Your task to perform on an android device: open app "Gmail" (install if not already installed), go to login, and select forgot password Image 0: 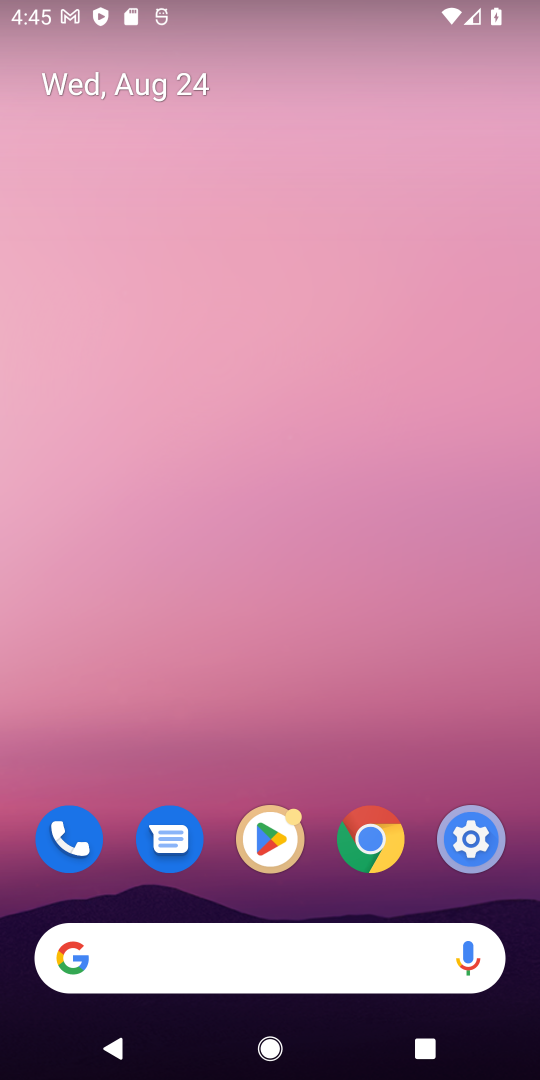
Step 0: click (274, 834)
Your task to perform on an android device: open app "Gmail" (install if not already installed), go to login, and select forgot password Image 1: 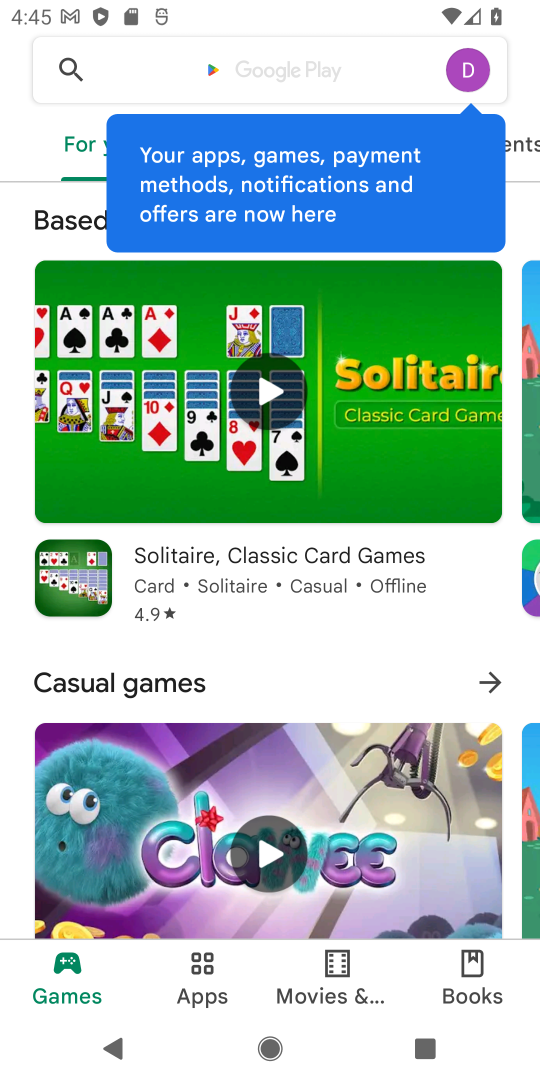
Step 1: click (296, 55)
Your task to perform on an android device: open app "Gmail" (install if not already installed), go to login, and select forgot password Image 2: 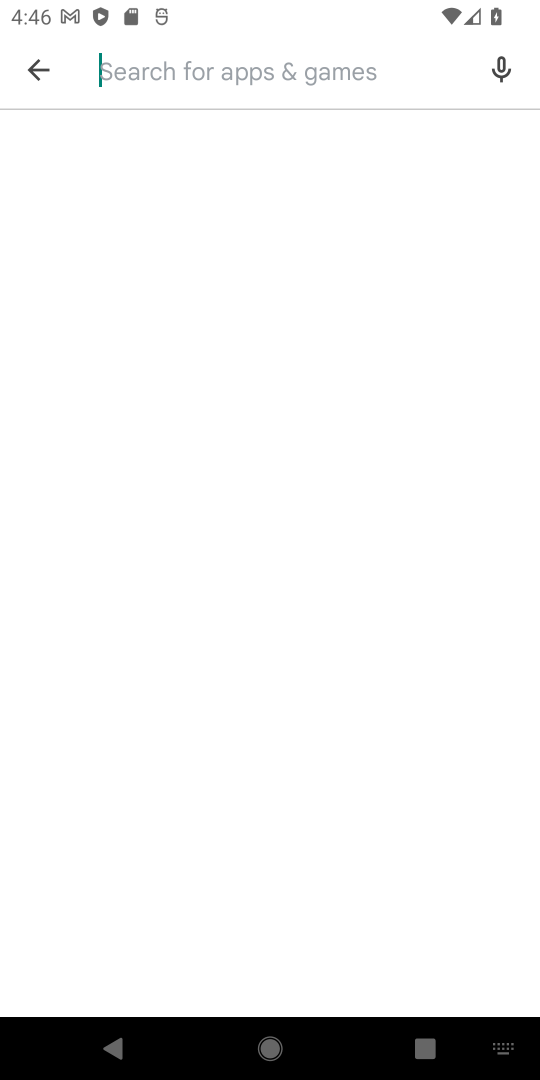
Step 2: type "Gmail"
Your task to perform on an android device: open app "Gmail" (install if not already installed), go to login, and select forgot password Image 3: 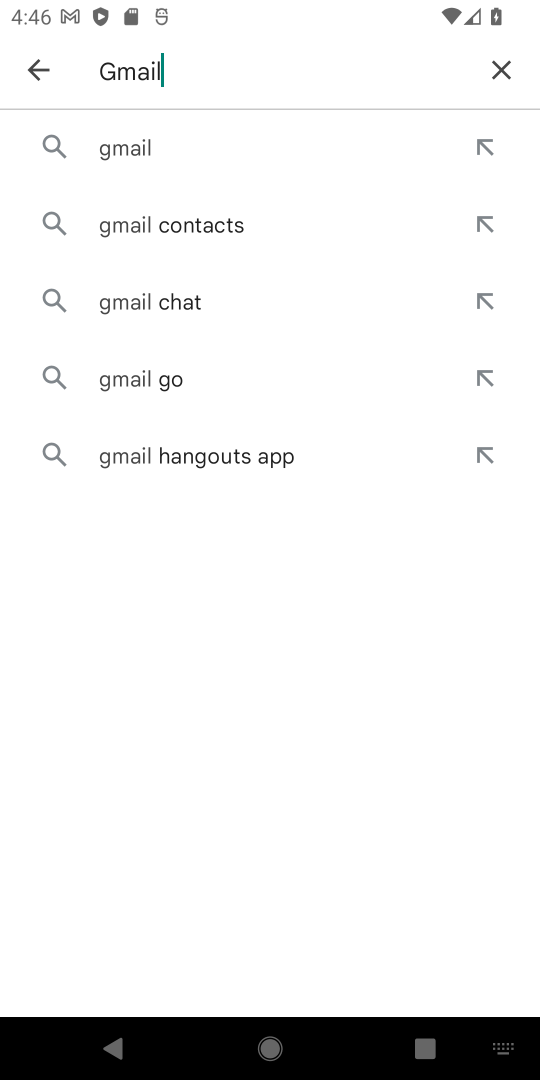
Step 3: click (138, 150)
Your task to perform on an android device: open app "Gmail" (install if not already installed), go to login, and select forgot password Image 4: 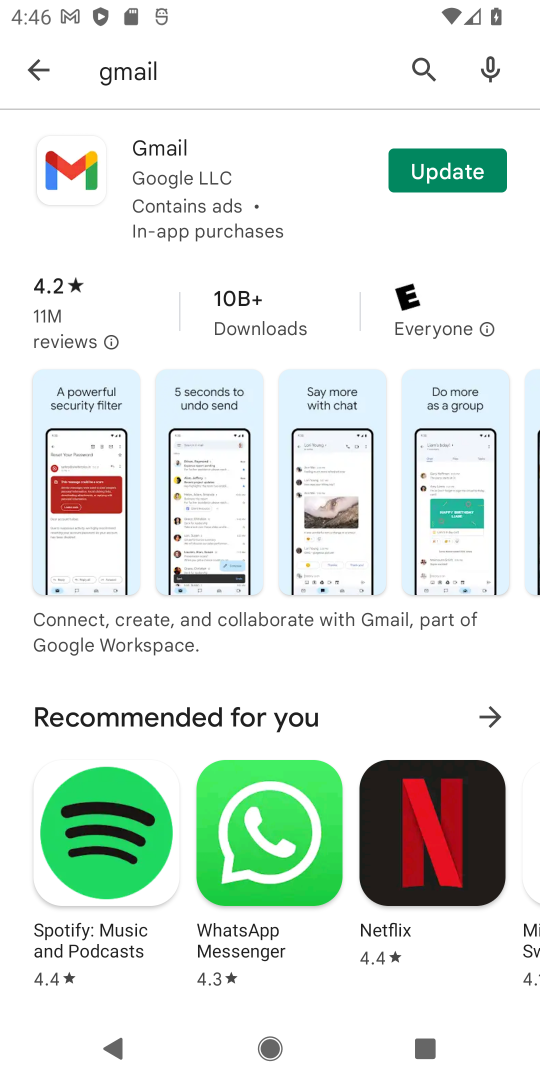
Step 4: click (158, 153)
Your task to perform on an android device: open app "Gmail" (install if not already installed), go to login, and select forgot password Image 5: 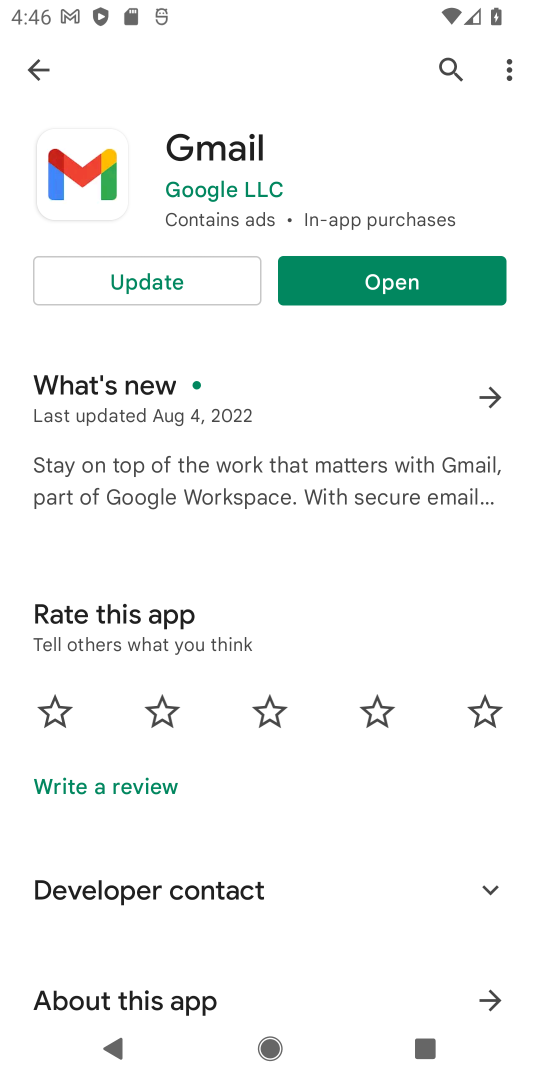
Step 5: click (406, 287)
Your task to perform on an android device: open app "Gmail" (install if not already installed), go to login, and select forgot password Image 6: 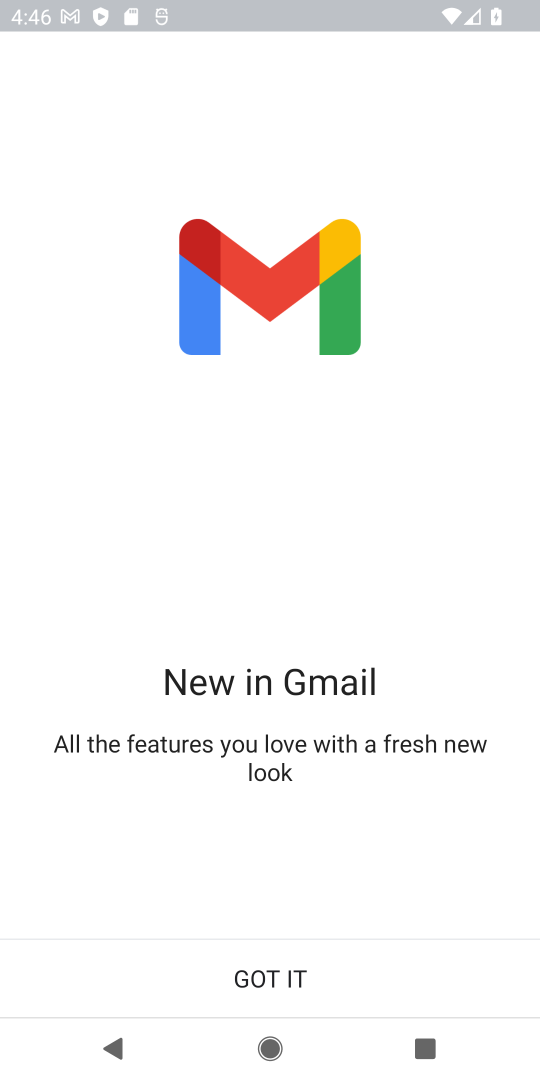
Step 6: click (319, 958)
Your task to perform on an android device: open app "Gmail" (install if not already installed), go to login, and select forgot password Image 7: 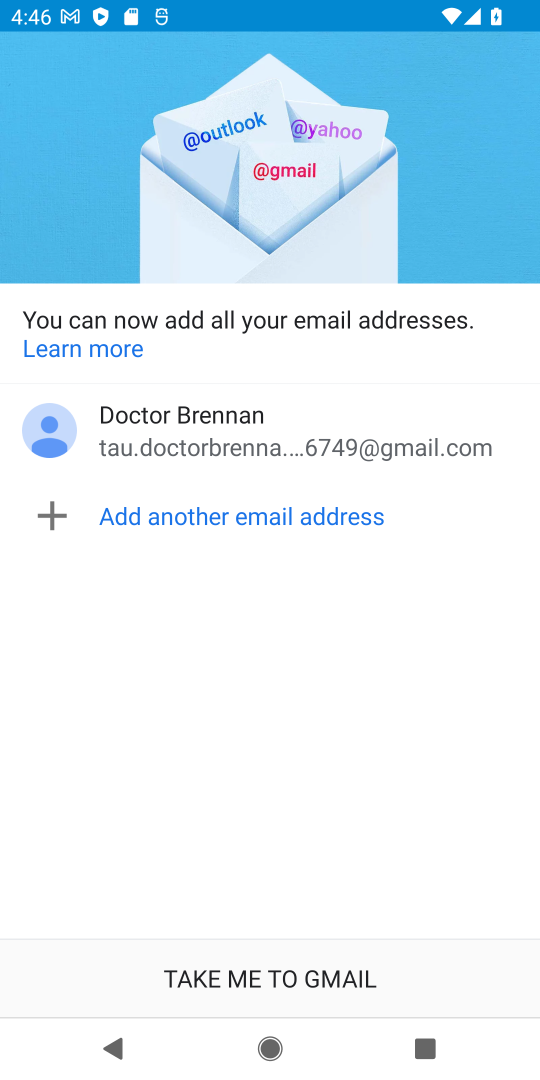
Step 7: task complete